Your task to perform on an android device: Open eBay Image 0: 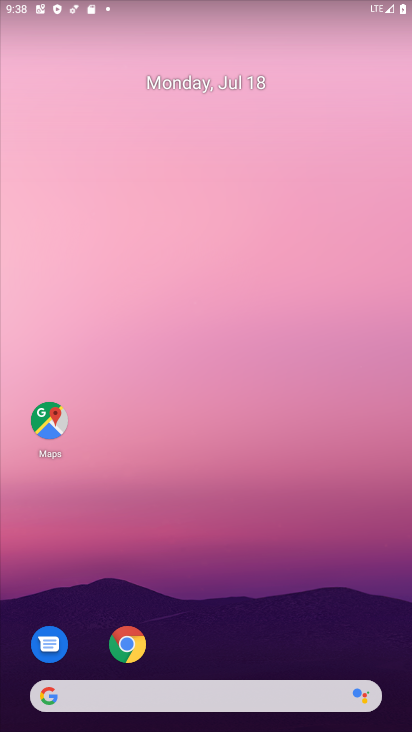
Step 0: drag from (213, 668) to (334, 15)
Your task to perform on an android device: Open eBay Image 1: 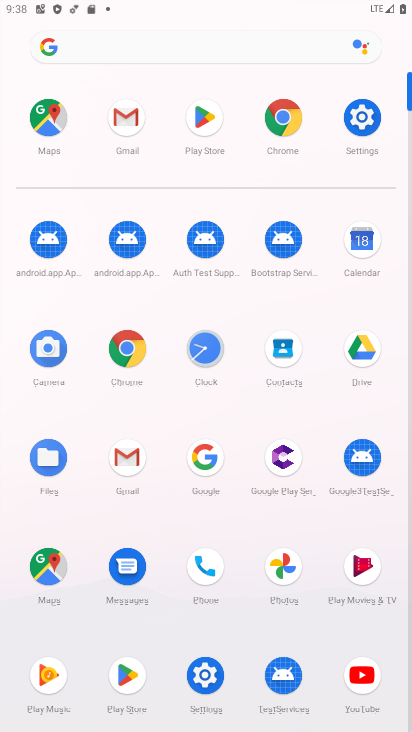
Step 1: click (140, 359)
Your task to perform on an android device: Open eBay Image 2: 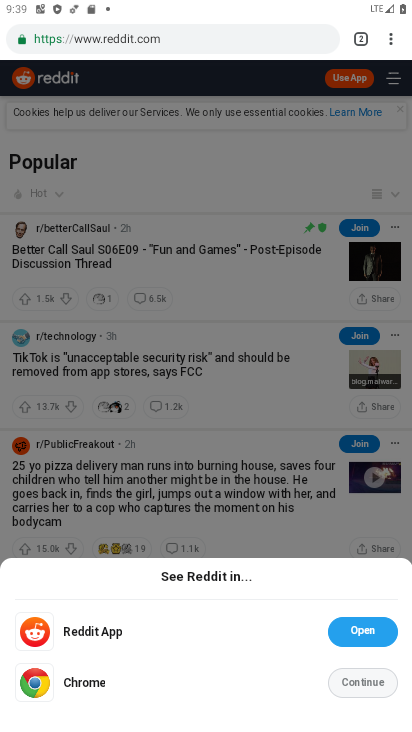
Step 2: click (360, 43)
Your task to perform on an android device: Open eBay Image 3: 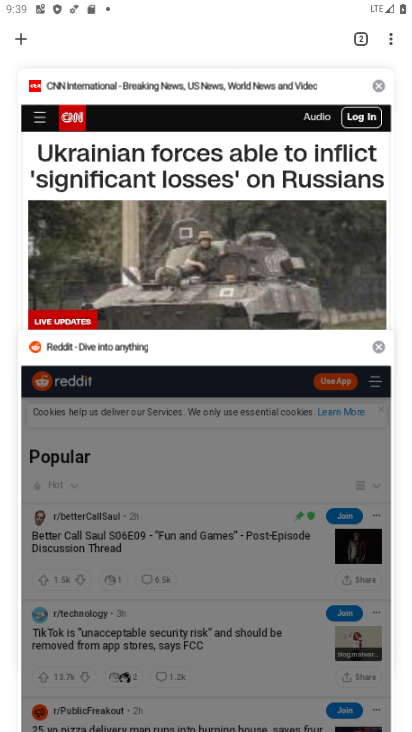
Step 3: click (20, 44)
Your task to perform on an android device: Open eBay Image 4: 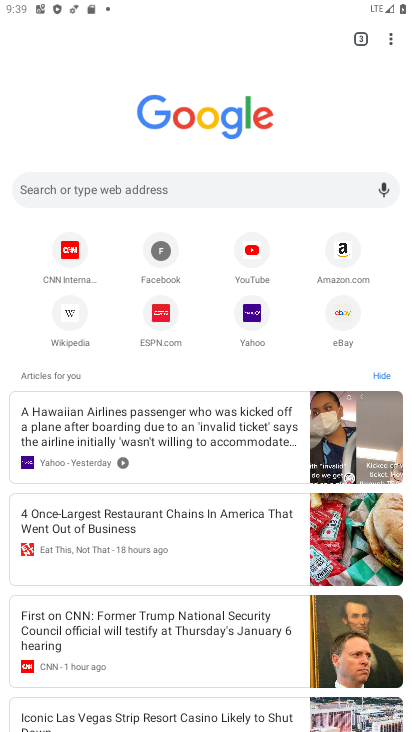
Step 4: click (343, 321)
Your task to perform on an android device: Open eBay Image 5: 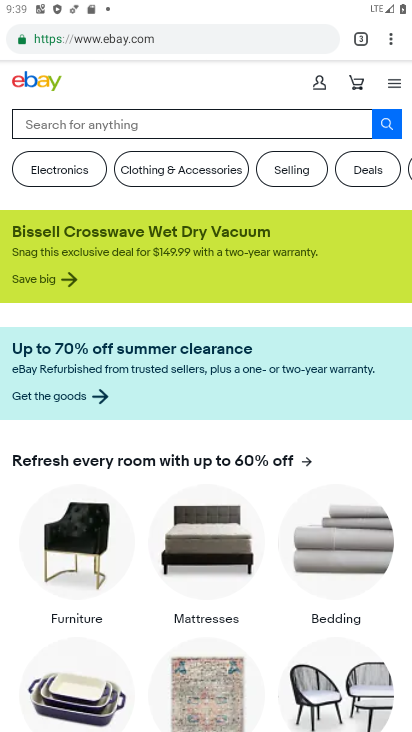
Step 5: task complete